Your task to perform on an android device: Open wifi settings Image 0: 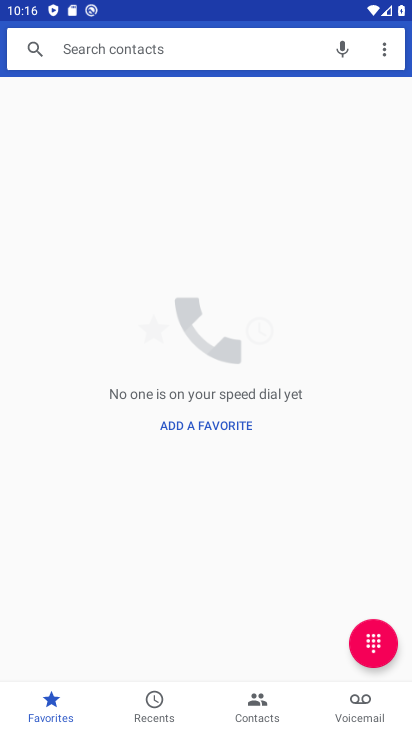
Step 0: press home button
Your task to perform on an android device: Open wifi settings Image 1: 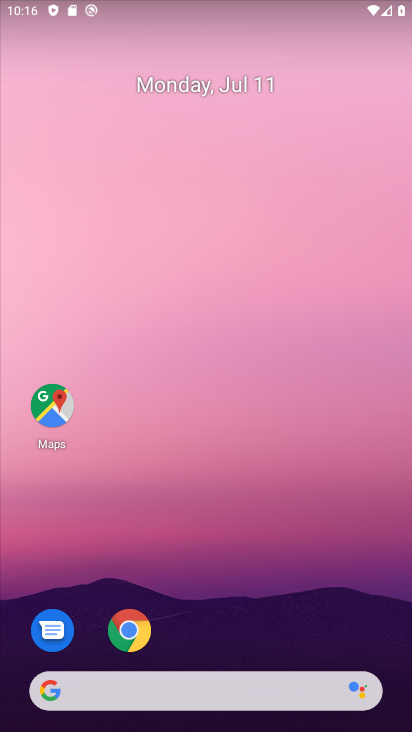
Step 1: drag from (330, 670) to (136, 207)
Your task to perform on an android device: Open wifi settings Image 2: 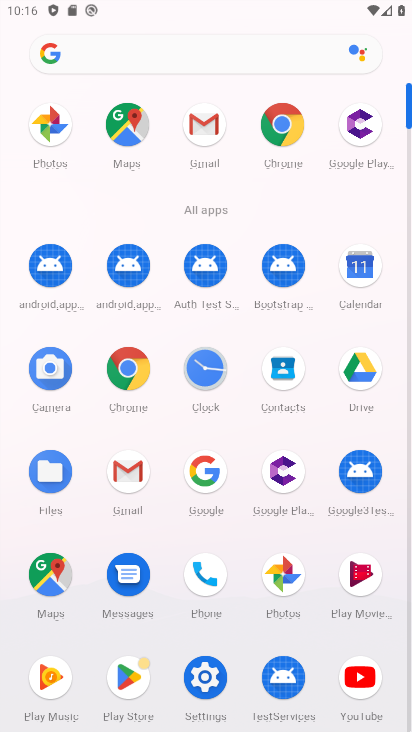
Step 2: click (197, 676)
Your task to perform on an android device: Open wifi settings Image 3: 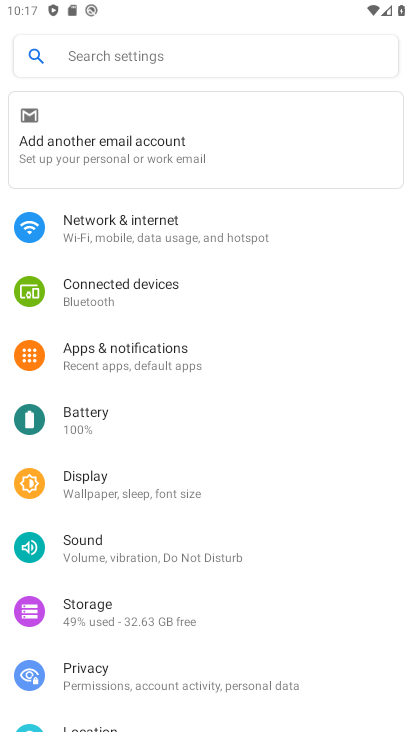
Step 3: click (202, 224)
Your task to perform on an android device: Open wifi settings Image 4: 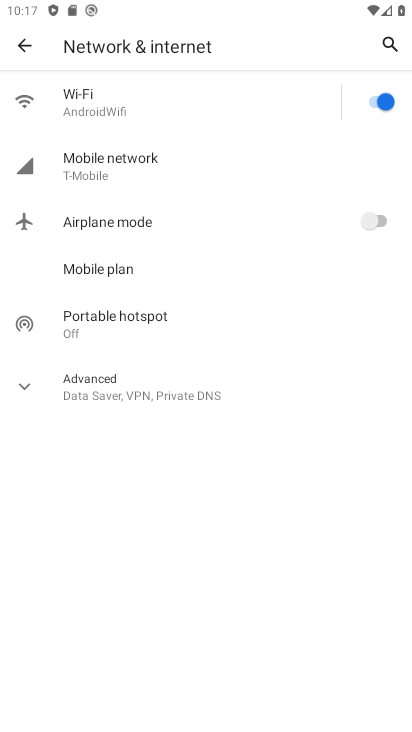
Step 4: click (145, 103)
Your task to perform on an android device: Open wifi settings Image 5: 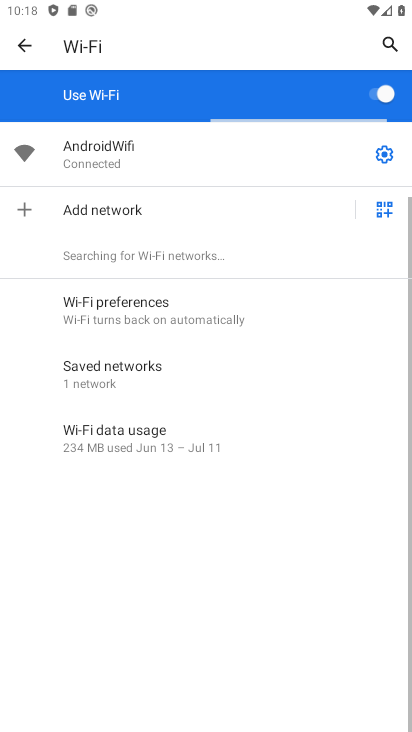
Step 5: task complete